Your task to perform on an android device: Open the stopwatch Image 0: 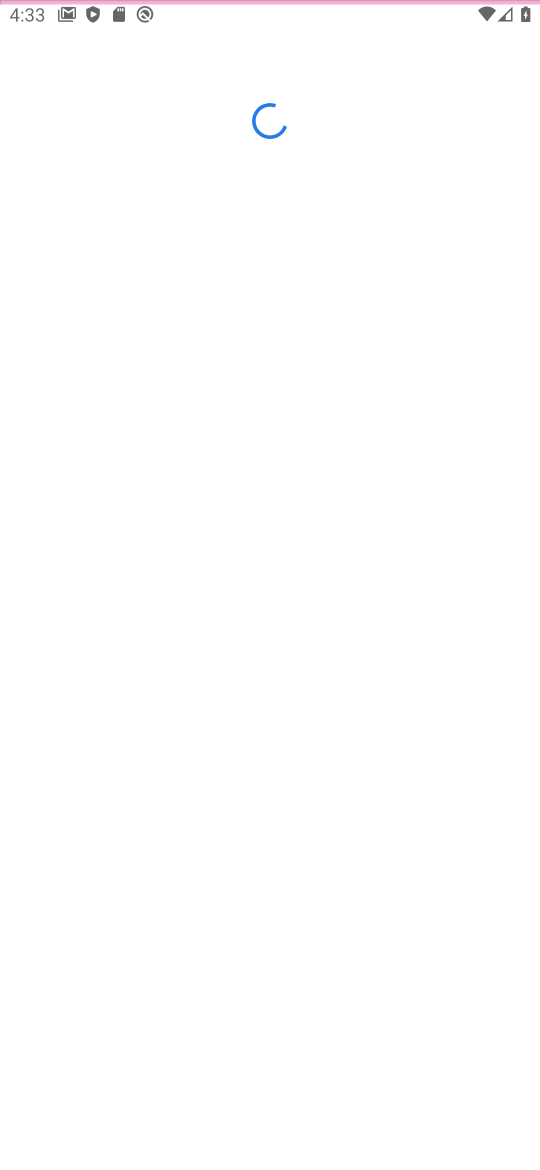
Step 0: press home button
Your task to perform on an android device: Open the stopwatch Image 1: 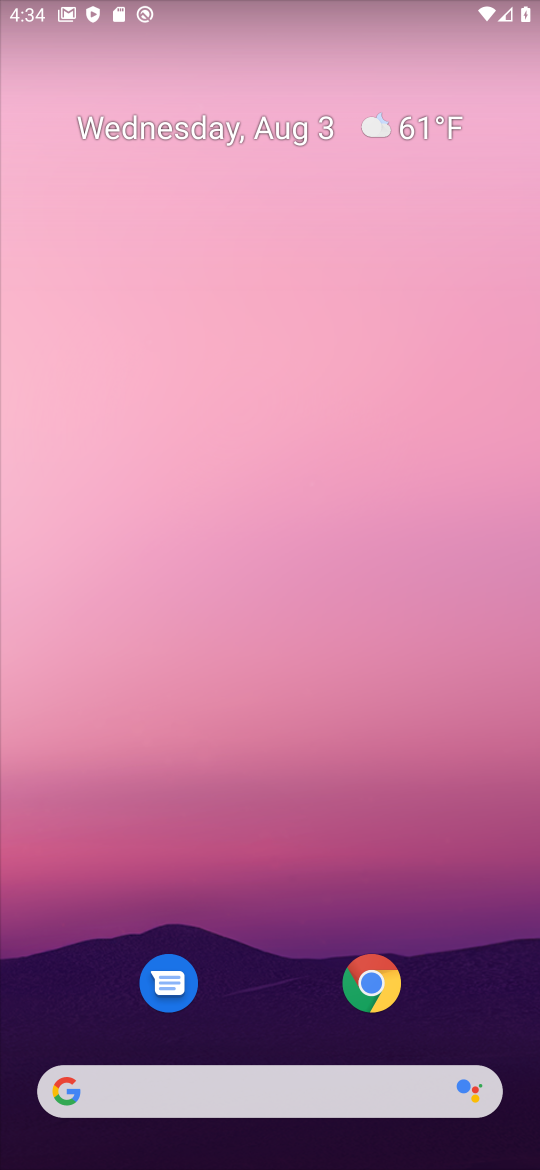
Step 1: drag from (338, 539) to (355, 323)
Your task to perform on an android device: Open the stopwatch Image 2: 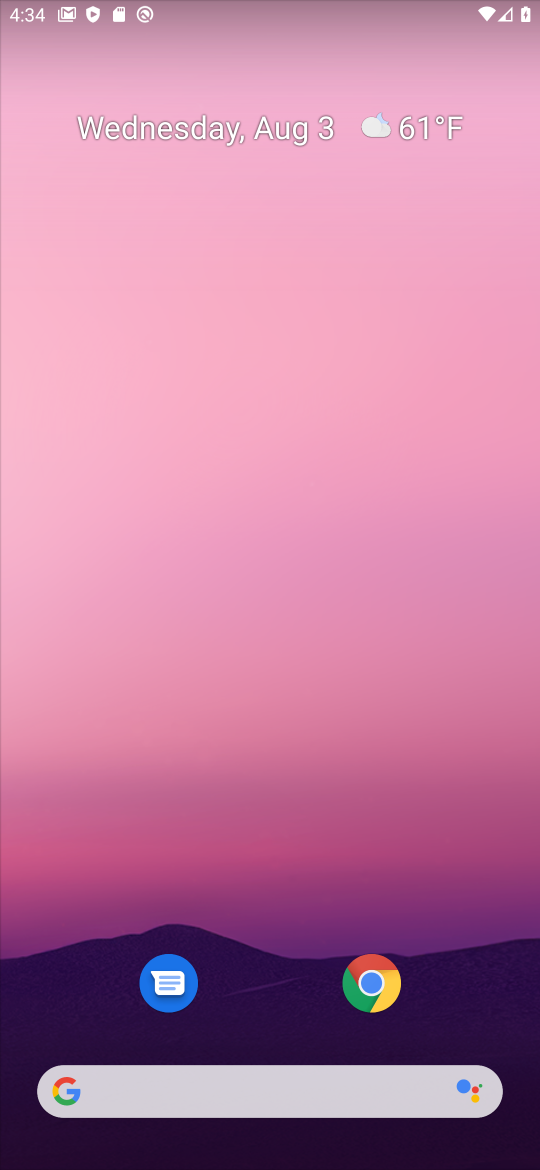
Step 2: drag from (308, 405) to (313, 309)
Your task to perform on an android device: Open the stopwatch Image 3: 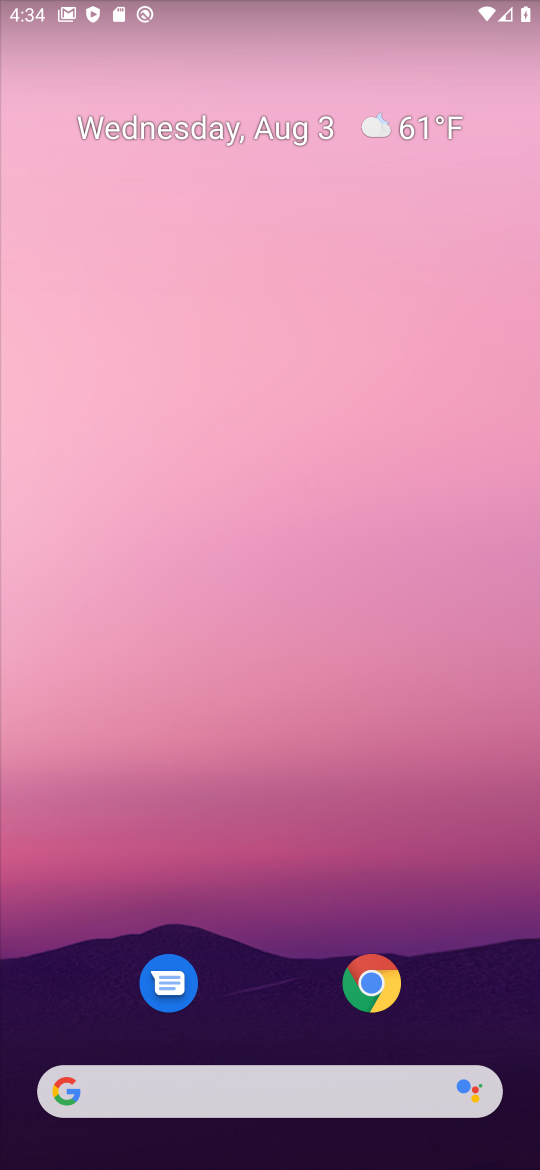
Step 3: drag from (309, 835) to (363, 151)
Your task to perform on an android device: Open the stopwatch Image 4: 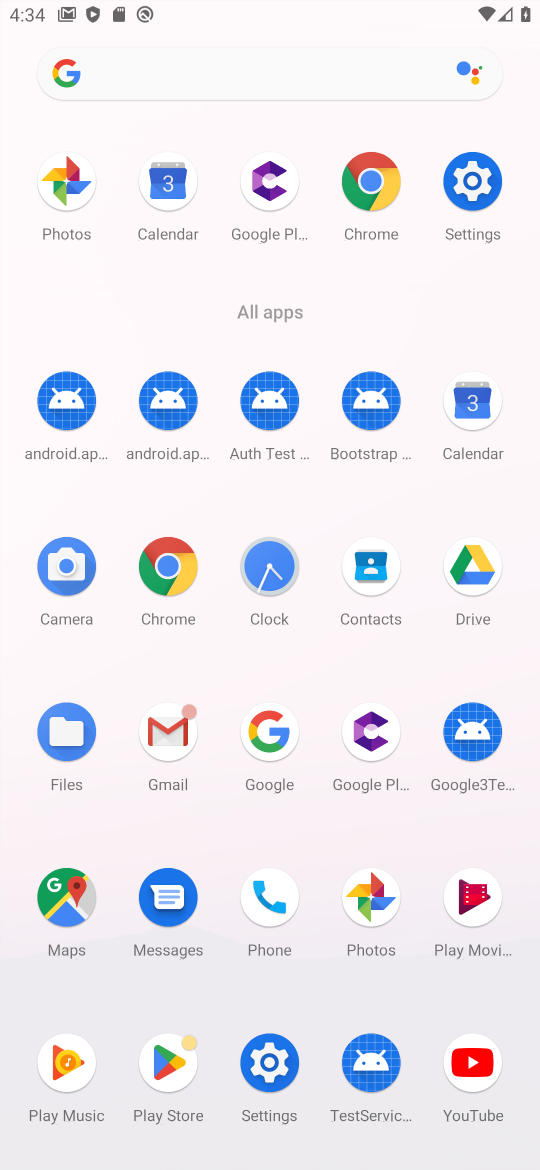
Step 4: click (263, 567)
Your task to perform on an android device: Open the stopwatch Image 5: 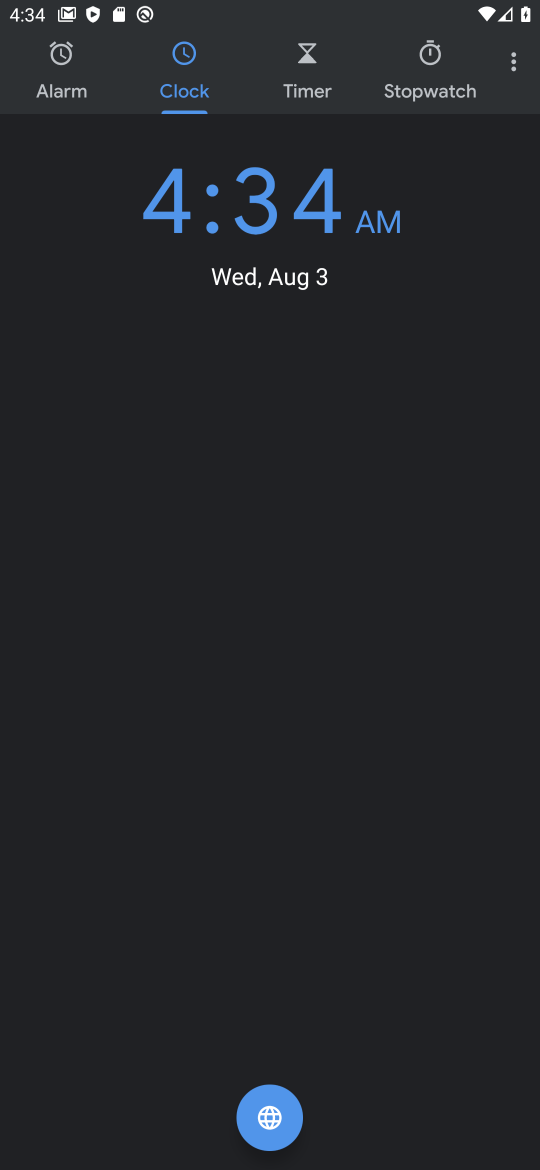
Step 5: click (422, 53)
Your task to perform on an android device: Open the stopwatch Image 6: 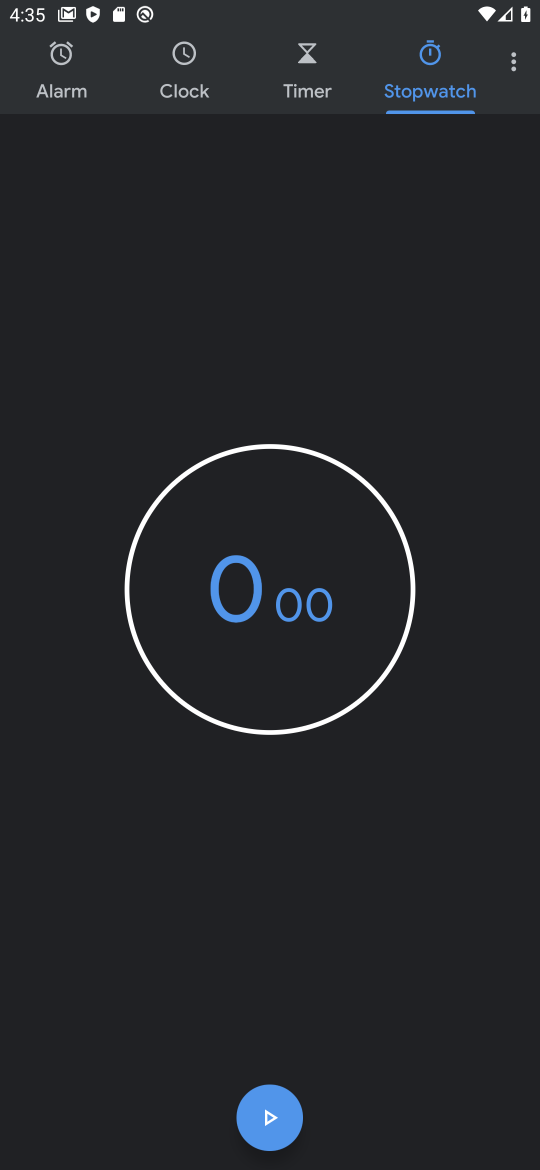
Step 6: task complete